Your task to perform on an android device: Open my contact list Image 0: 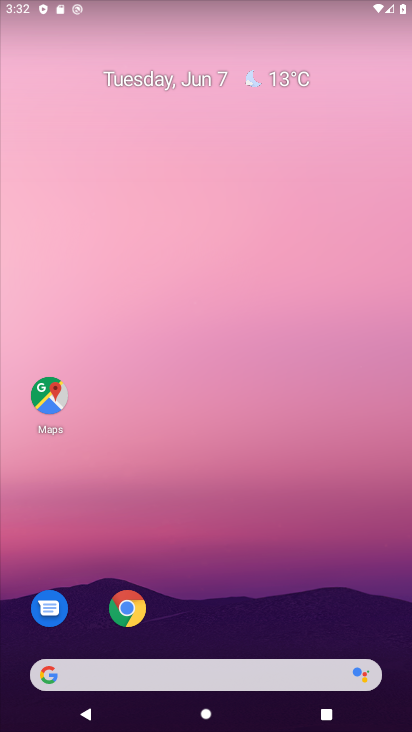
Step 0: drag from (197, 642) to (260, 179)
Your task to perform on an android device: Open my contact list Image 1: 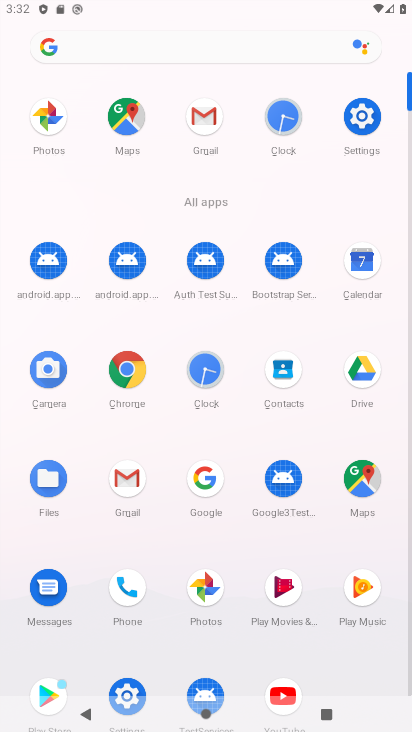
Step 1: click (126, 598)
Your task to perform on an android device: Open my contact list Image 2: 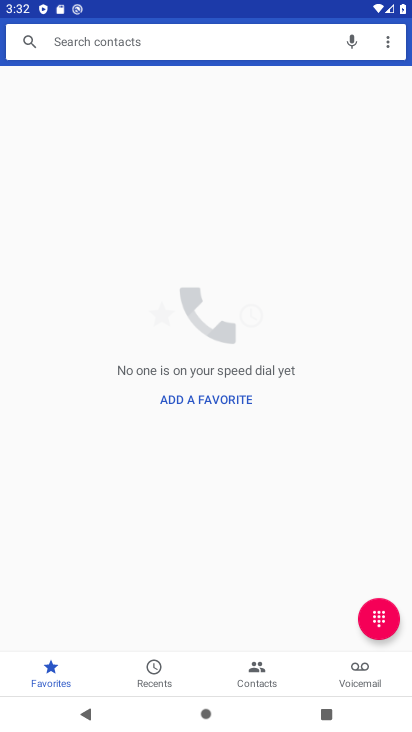
Step 2: click (246, 673)
Your task to perform on an android device: Open my contact list Image 3: 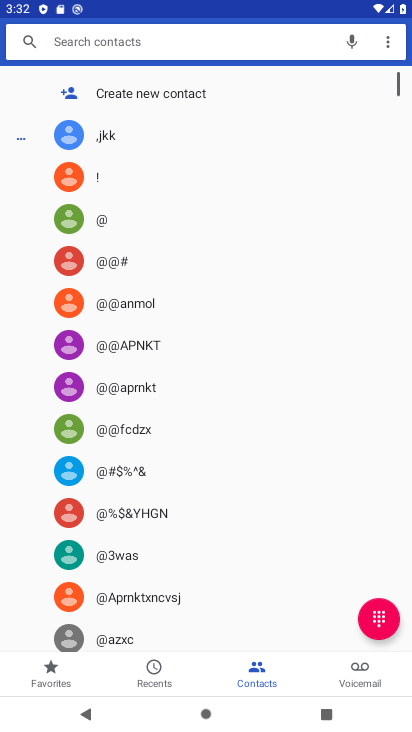
Step 3: task complete